Your task to perform on an android device: change the clock style Image 0: 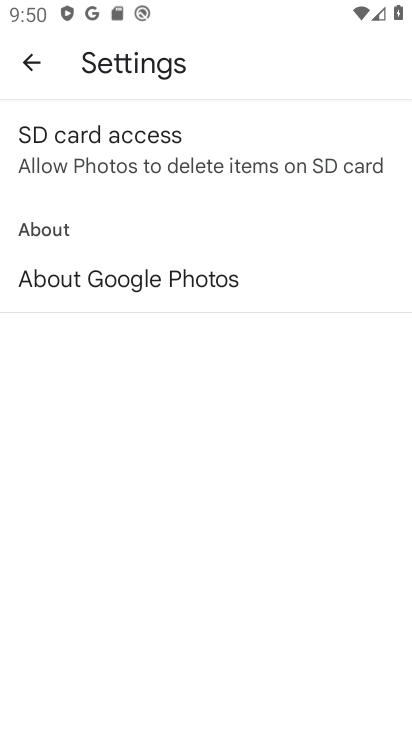
Step 0: press back button
Your task to perform on an android device: change the clock style Image 1: 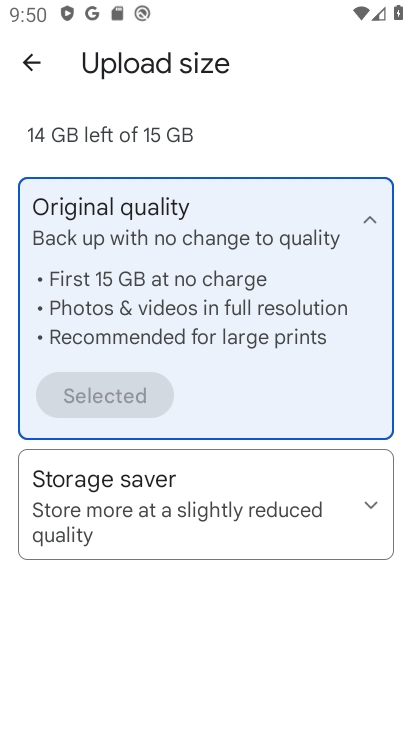
Step 1: press back button
Your task to perform on an android device: change the clock style Image 2: 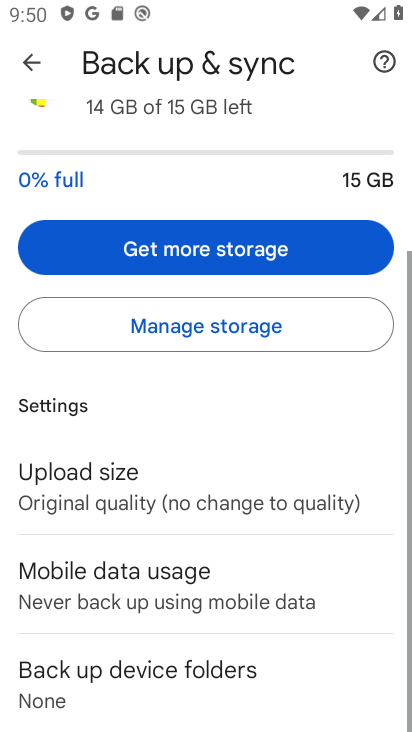
Step 2: press home button
Your task to perform on an android device: change the clock style Image 3: 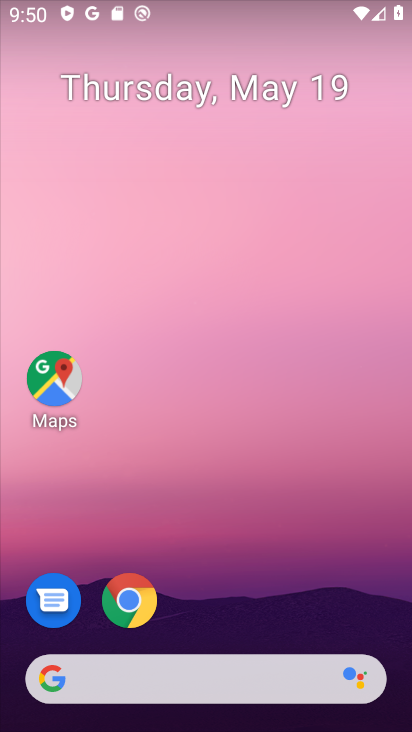
Step 3: drag from (235, 399) to (237, 55)
Your task to perform on an android device: change the clock style Image 4: 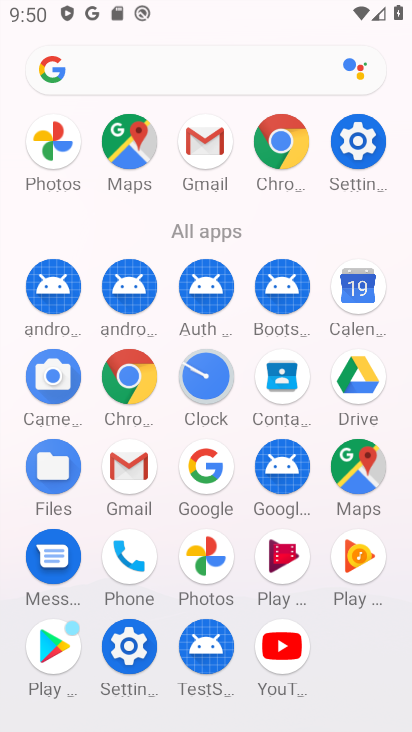
Step 4: click (203, 377)
Your task to perform on an android device: change the clock style Image 5: 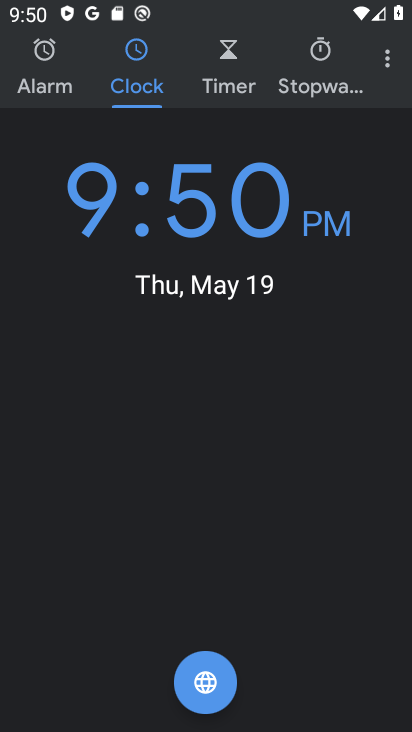
Step 5: drag from (384, 63) to (336, 120)
Your task to perform on an android device: change the clock style Image 6: 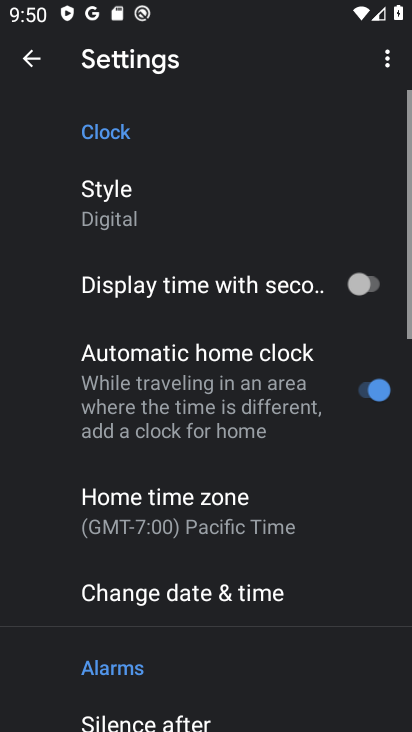
Step 6: click (32, 45)
Your task to perform on an android device: change the clock style Image 7: 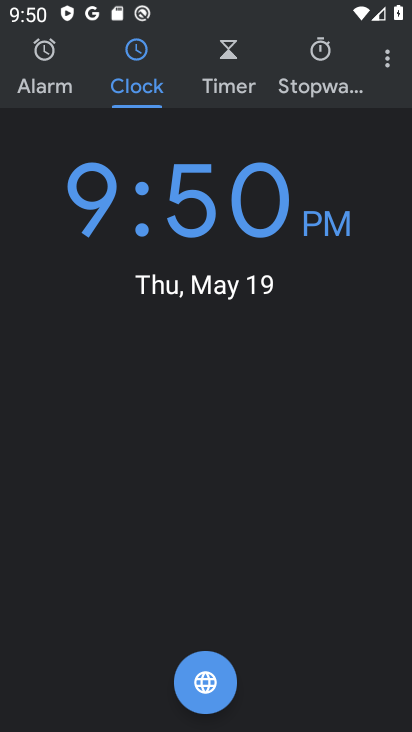
Step 7: drag from (375, 55) to (323, 108)
Your task to perform on an android device: change the clock style Image 8: 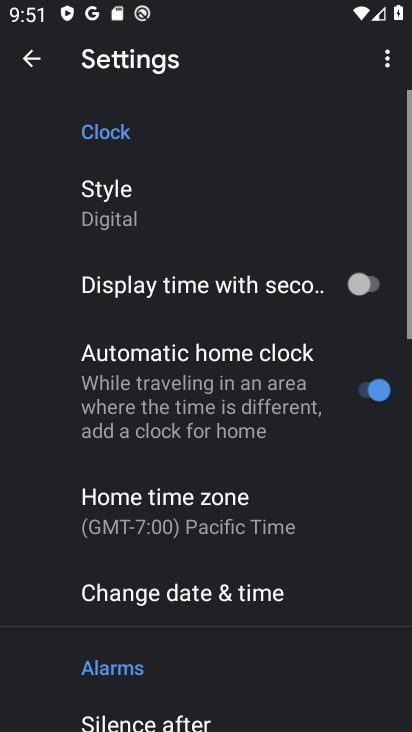
Step 8: click (181, 200)
Your task to perform on an android device: change the clock style Image 9: 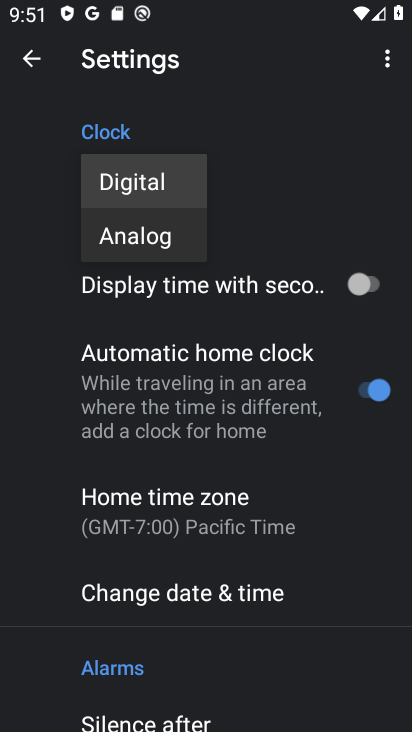
Step 9: click (157, 222)
Your task to perform on an android device: change the clock style Image 10: 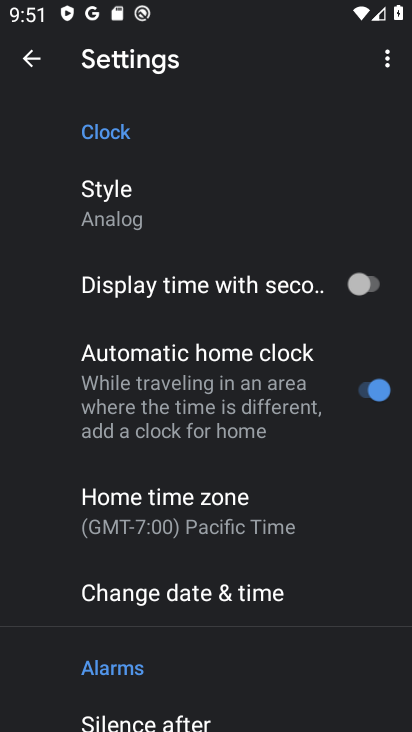
Step 10: task complete